Your task to perform on an android device: Go to location settings Image 0: 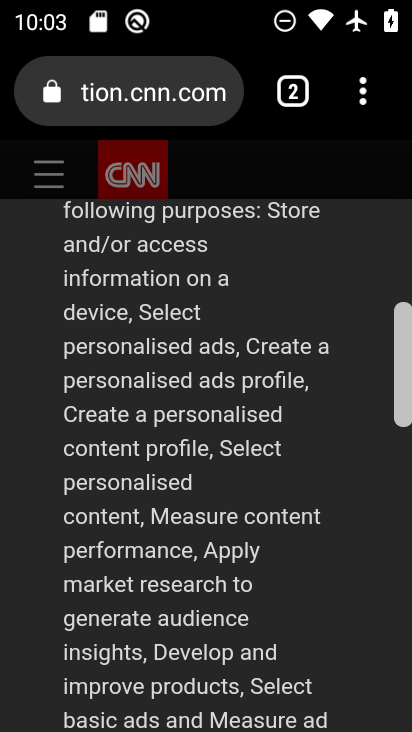
Step 0: press home button
Your task to perform on an android device: Go to location settings Image 1: 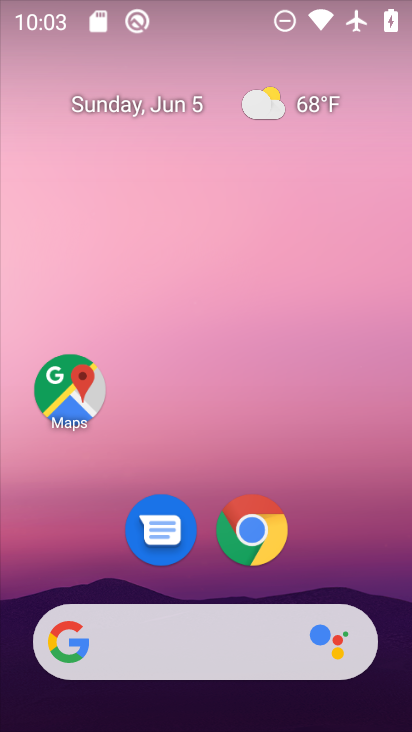
Step 1: drag from (381, 533) to (306, 59)
Your task to perform on an android device: Go to location settings Image 2: 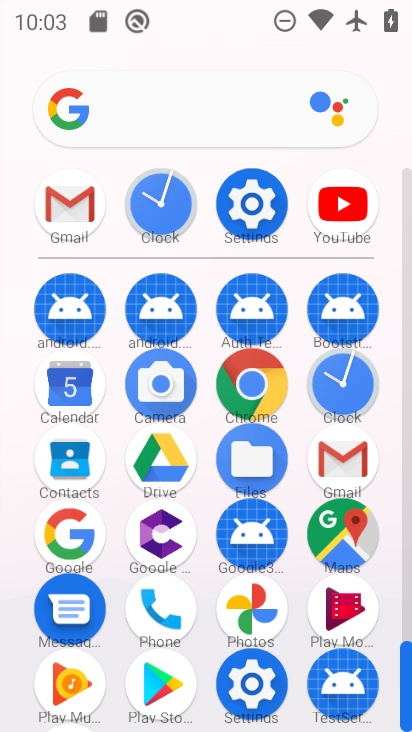
Step 2: click (403, 624)
Your task to perform on an android device: Go to location settings Image 3: 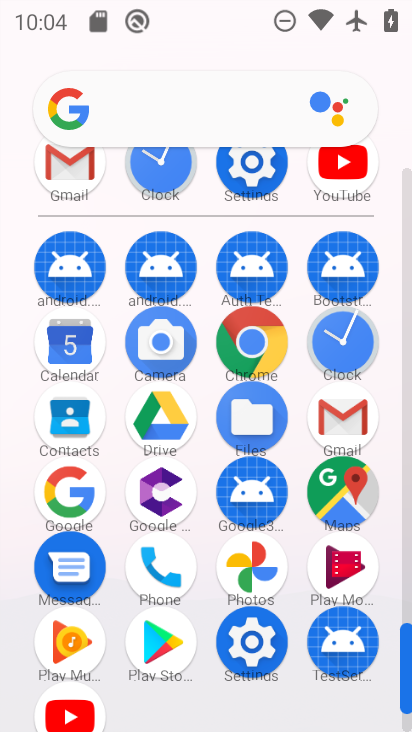
Step 3: click (250, 642)
Your task to perform on an android device: Go to location settings Image 4: 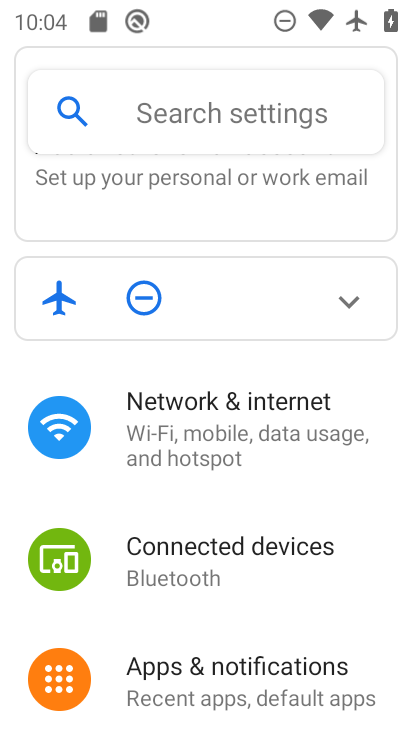
Step 4: drag from (363, 669) to (334, 79)
Your task to perform on an android device: Go to location settings Image 5: 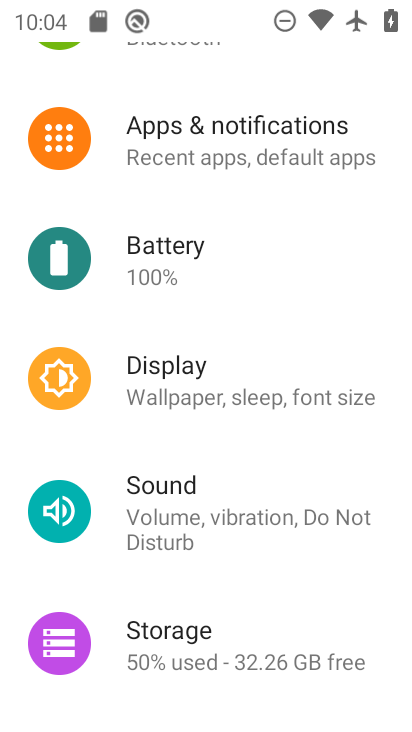
Step 5: drag from (372, 533) to (356, 96)
Your task to perform on an android device: Go to location settings Image 6: 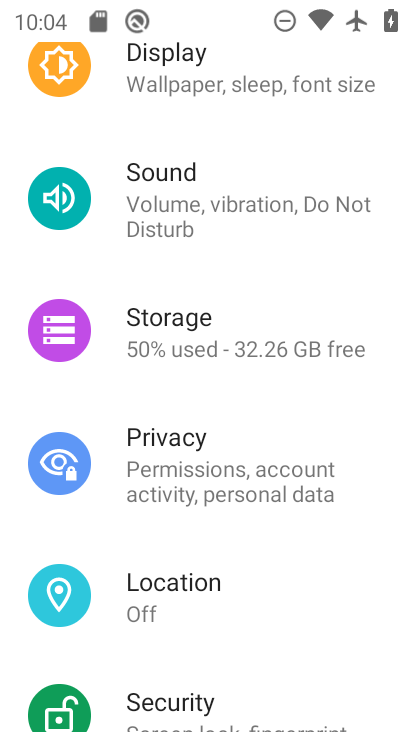
Step 6: click (172, 587)
Your task to perform on an android device: Go to location settings Image 7: 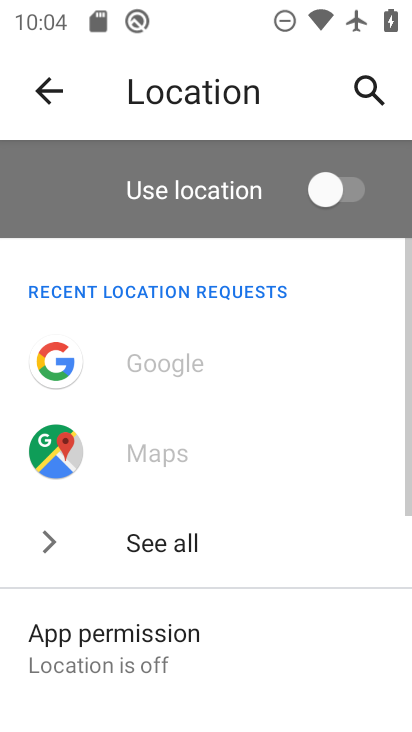
Step 7: task complete